Your task to perform on an android device: check google app version Image 0: 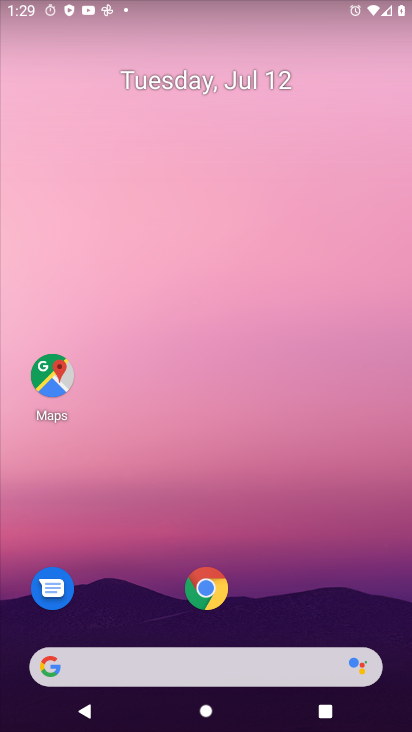
Step 0: drag from (202, 668) to (366, 98)
Your task to perform on an android device: check google app version Image 1: 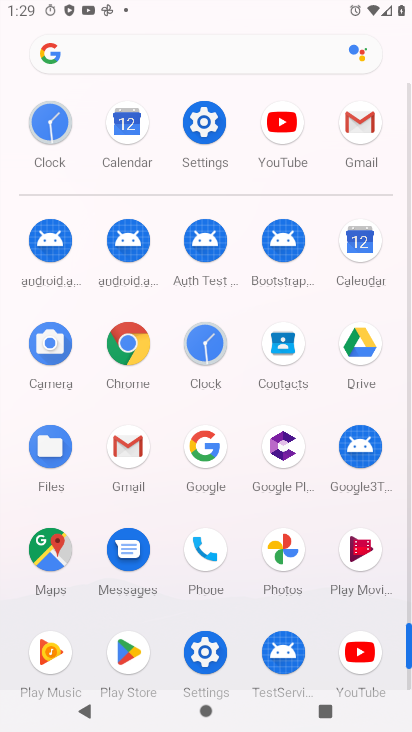
Step 1: click (210, 453)
Your task to perform on an android device: check google app version Image 2: 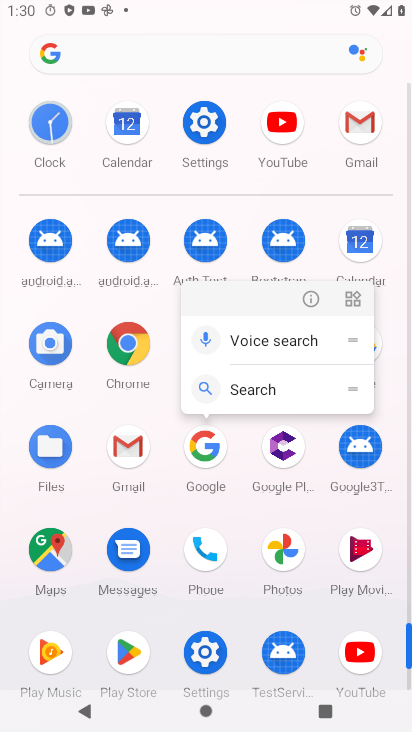
Step 2: click (310, 301)
Your task to perform on an android device: check google app version Image 3: 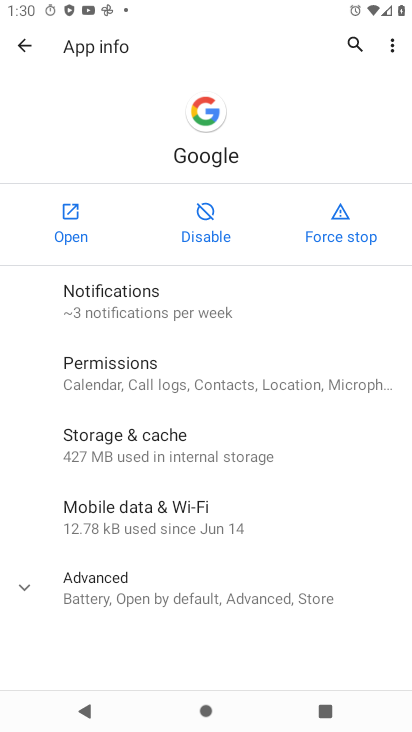
Step 3: click (156, 587)
Your task to perform on an android device: check google app version Image 4: 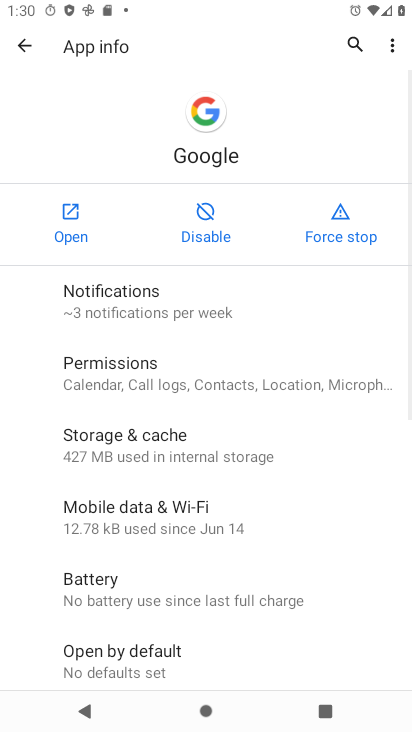
Step 4: drag from (187, 614) to (267, 12)
Your task to perform on an android device: check google app version Image 5: 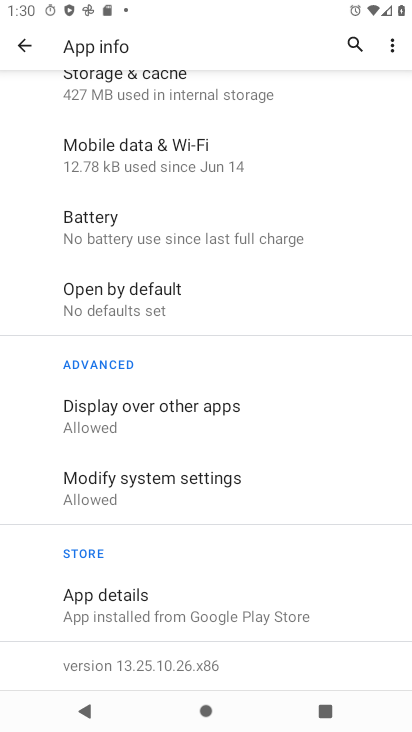
Step 5: click (94, 551)
Your task to perform on an android device: check google app version Image 6: 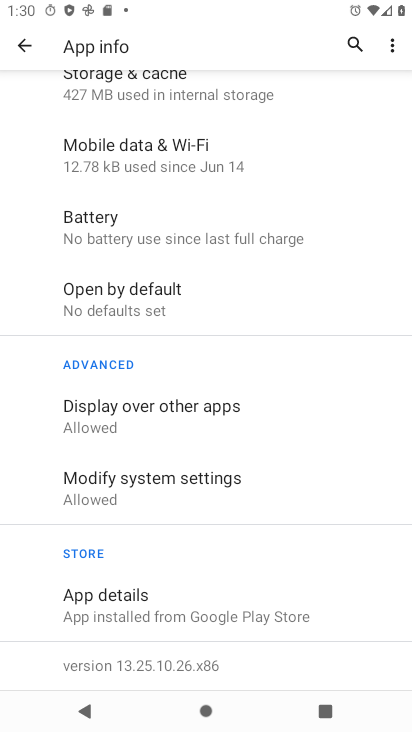
Step 6: click (152, 628)
Your task to perform on an android device: check google app version Image 7: 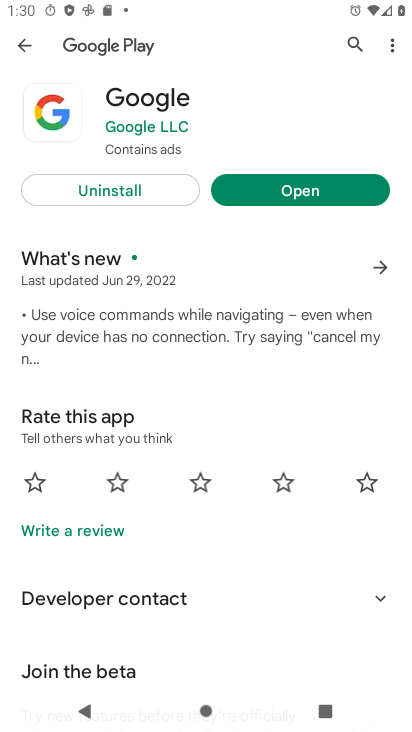
Step 7: click (27, 46)
Your task to perform on an android device: check google app version Image 8: 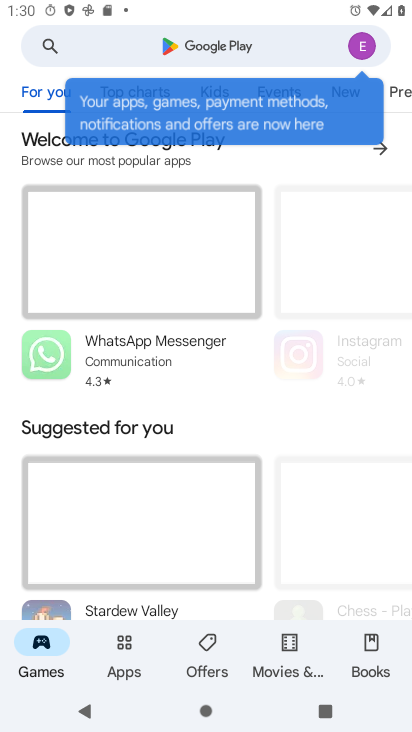
Step 8: task complete